Your task to perform on an android device: Add razer thresher to the cart on bestbuy, then select checkout. Image 0: 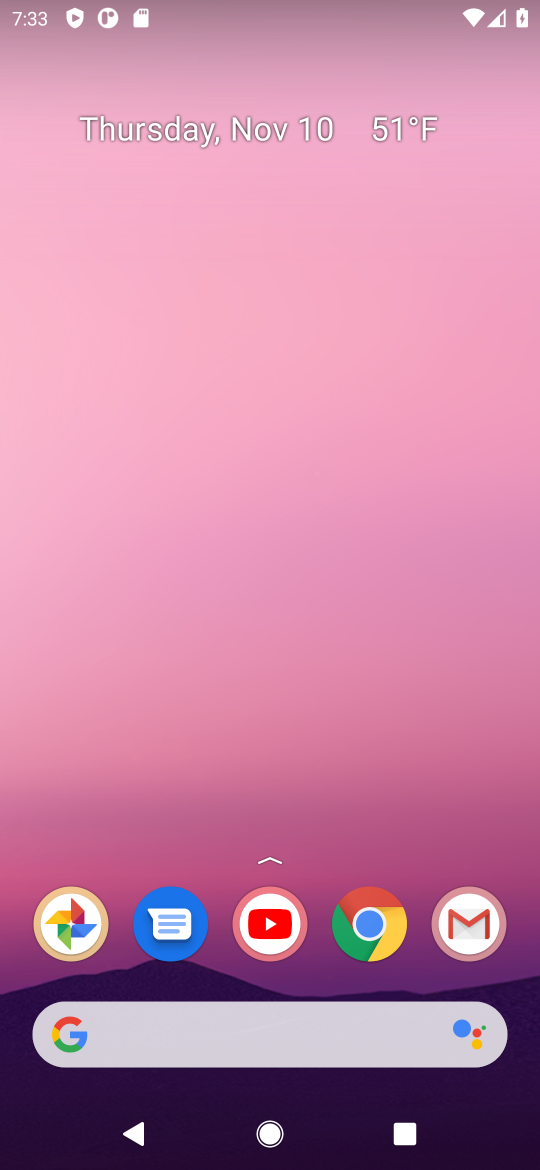
Step 0: click (378, 936)
Your task to perform on an android device: Add razer thresher to the cart on bestbuy, then select checkout. Image 1: 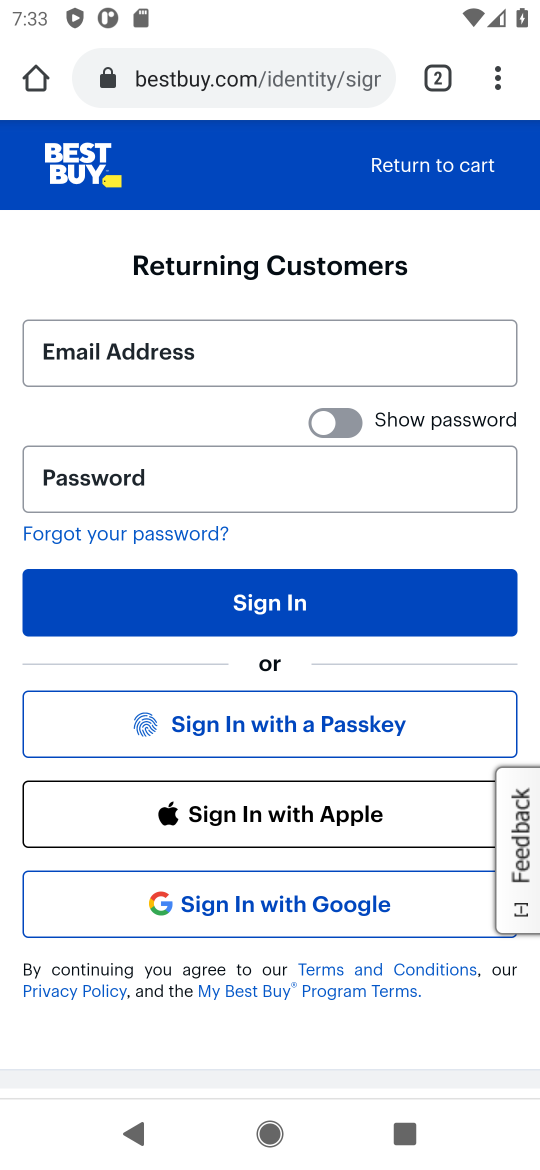
Step 1: click (429, 164)
Your task to perform on an android device: Add razer thresher to the cart on bestbuy, then select checkout. Image 2: 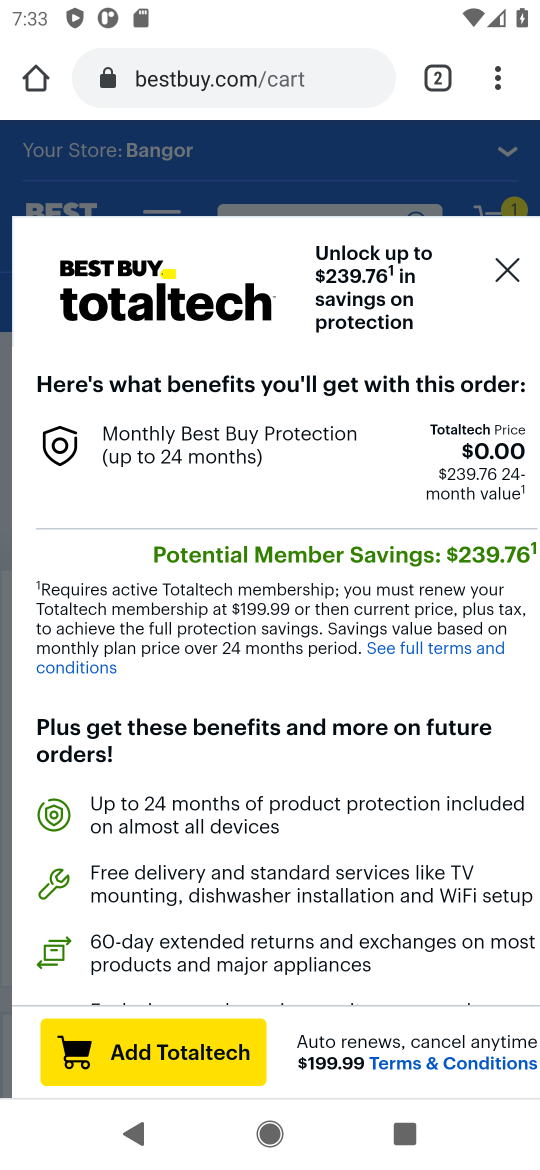
Step 2: click (503, 261)
Your task to perform on an android device: Add razer thresher to the cart on bestbuy, then select checkout. Image 3: 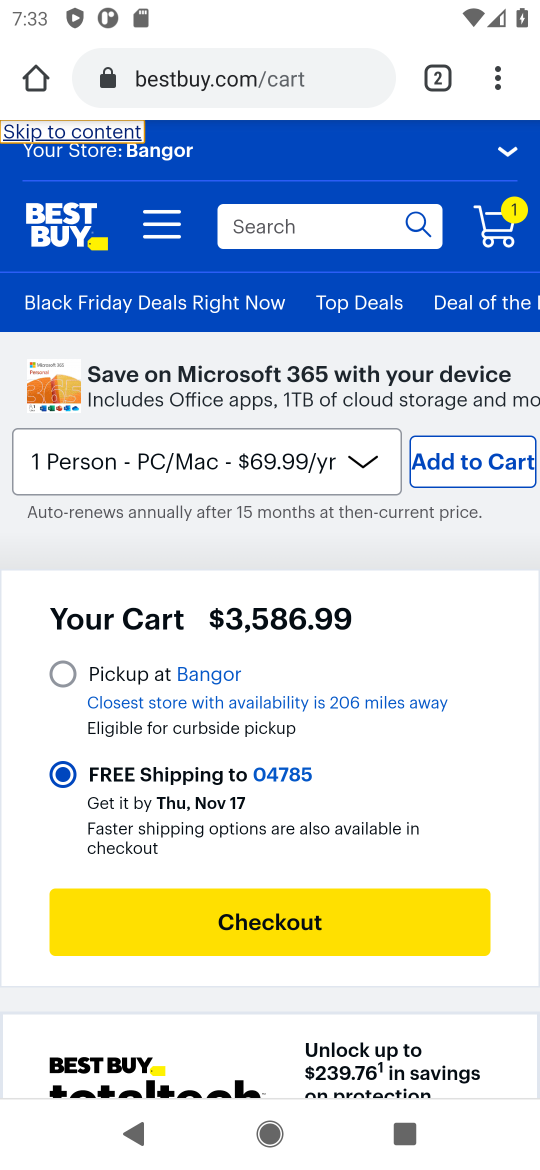
Step 3: click (336, 225)
Your task to perform on an android device: Add razer thresher to the cart on bestbuy, then select checkout. Image 4: 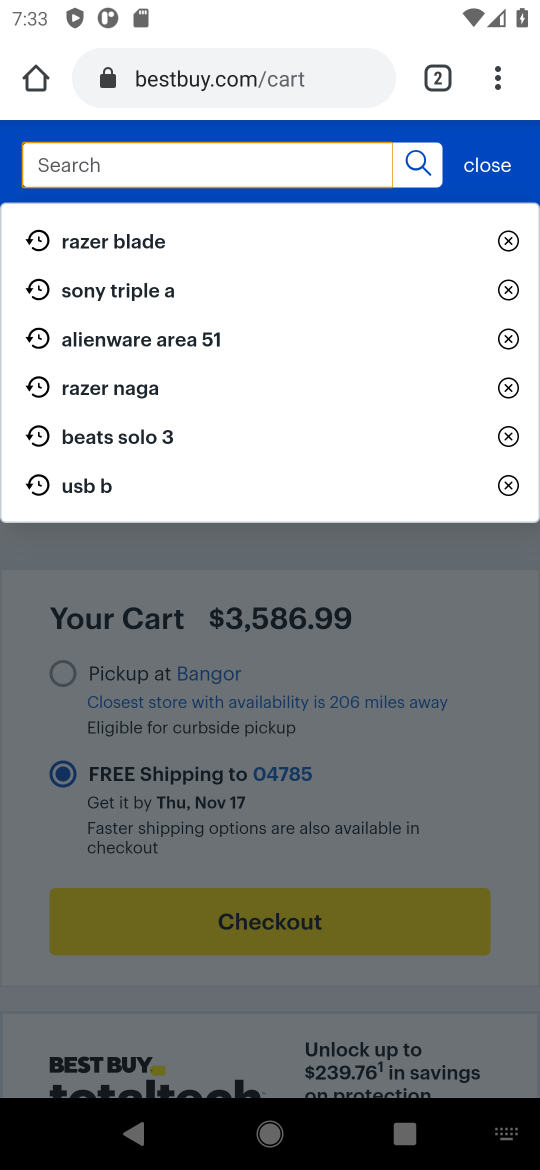
Step 4: type "razer thresher"
Your task to perform on an android device: Add razer thresher to the cart on bestbuy, then select checkout. Image 5: 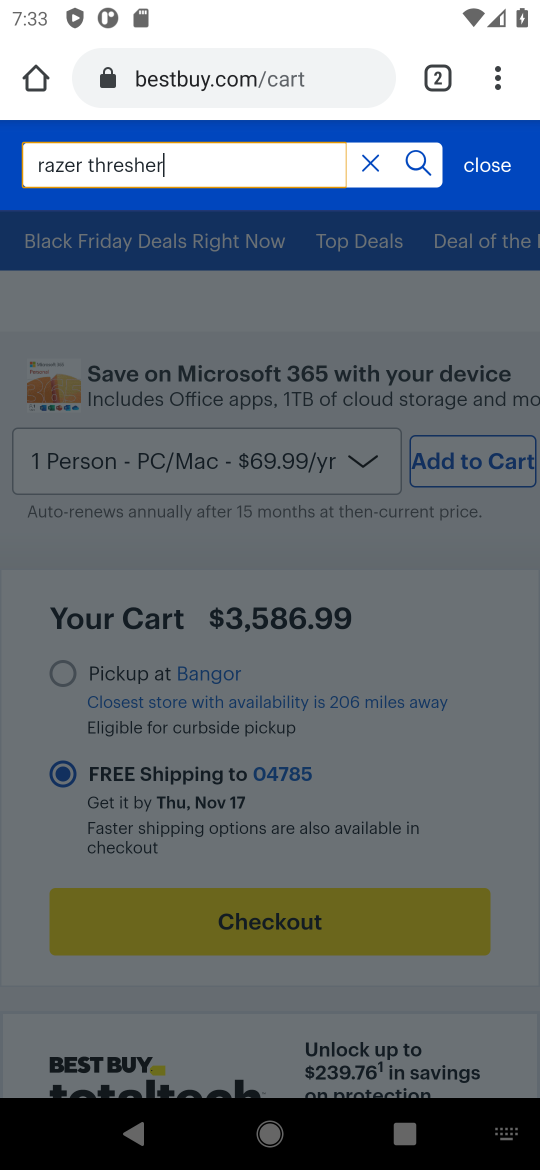
Step 5: click (419, 160)
Your task to perform on an android device: Add razer thresher to the cart on bestbuy, then select checkout. Image 6: 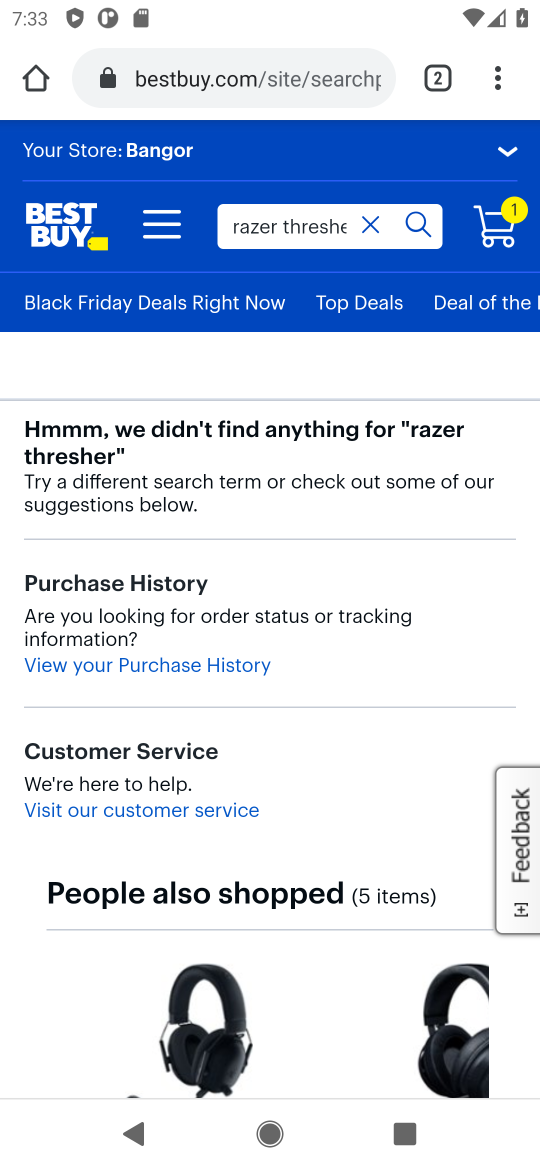
Step 6: task complete